Your task to perform on an android device: set the stopwatch Image 0: 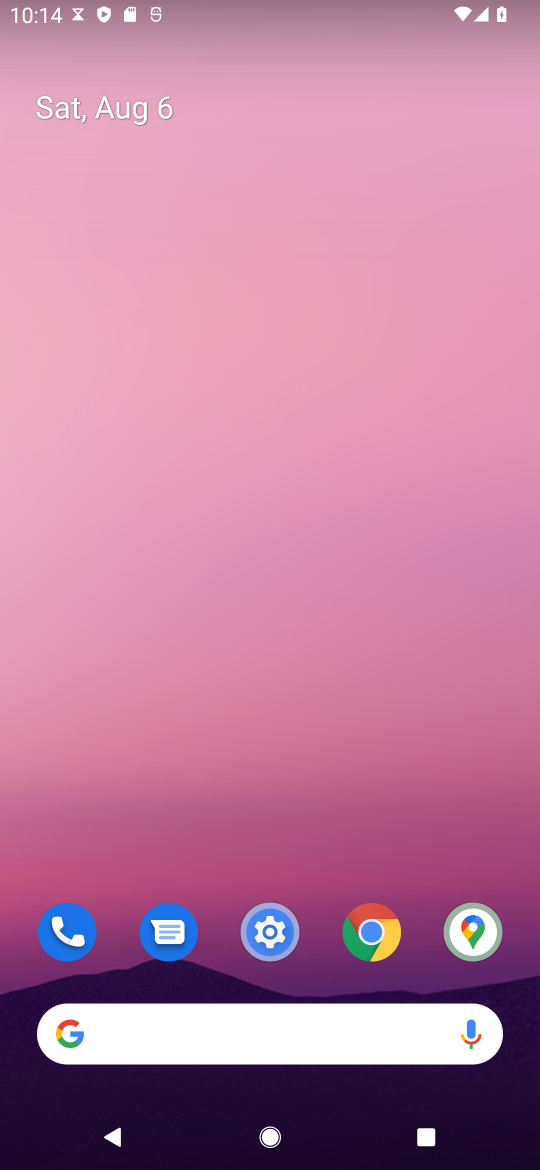
Step 0: drag from (291, 1041) to (323, 298)
Your task to perform on an android device: set the stopwatch Image 1: 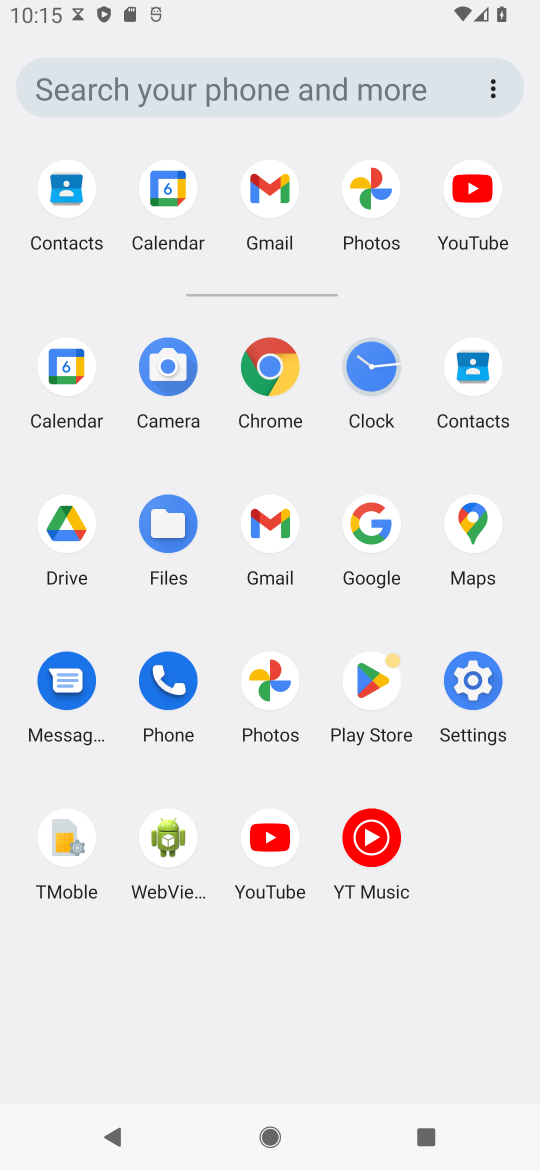
Step 1: click (373, 371)
Your task to perform on an android device: set the stopwatch Image 2: 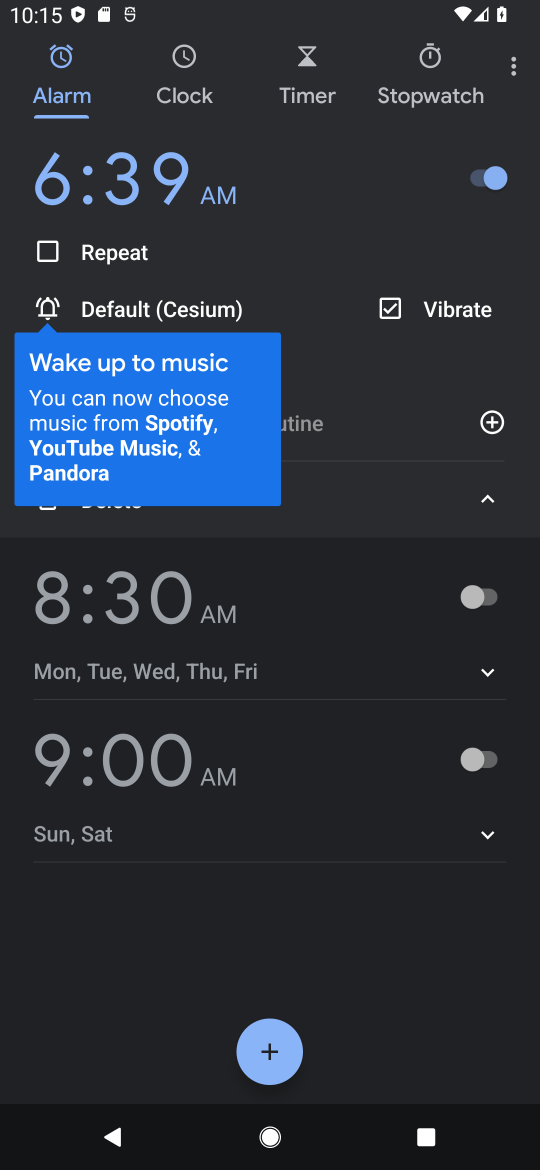
Step 2: click (432, 65)
Your task to perform on an android device: set the stopwatch Image 3: 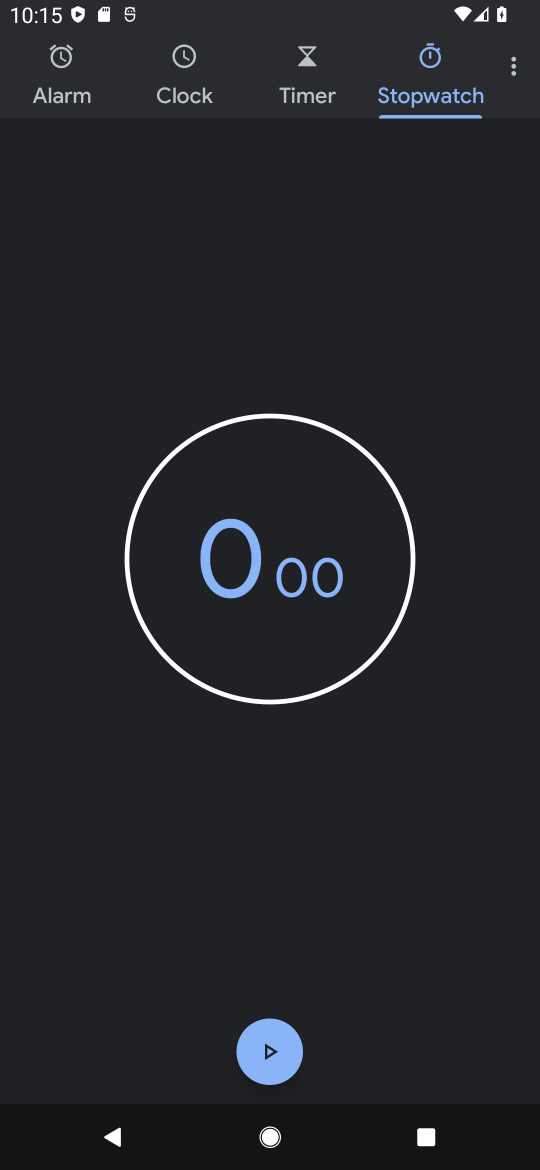
Step 3: task complete